Your task to perform on an android device: Open the Play Movies app and select the watchlist tab. Image 0: 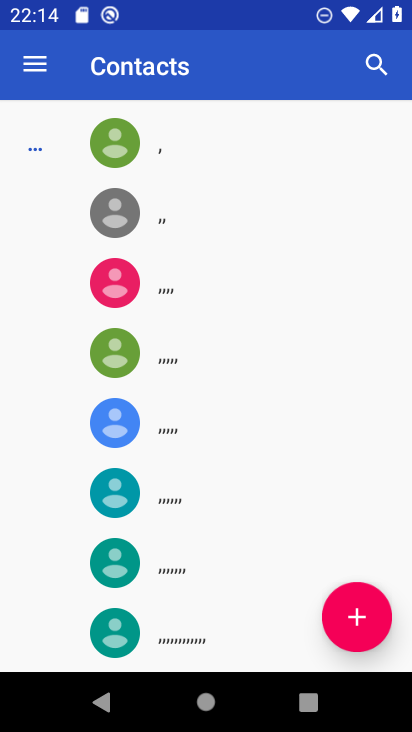
Step 0: press home button
Your task to perform on an android device: Open the Play Movies app and select the watchlist tab. Image 1: 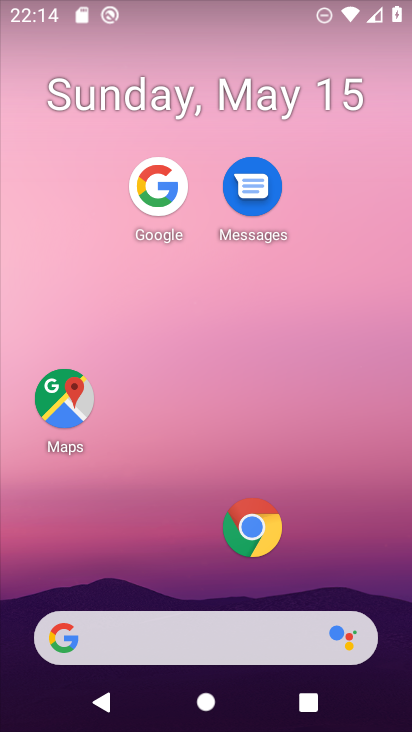
Step 1: drag from (186, 628) to (334, 257)
Your task to perform on an android device: Open the Play Movies app and select the watchlist tab. Image 2: 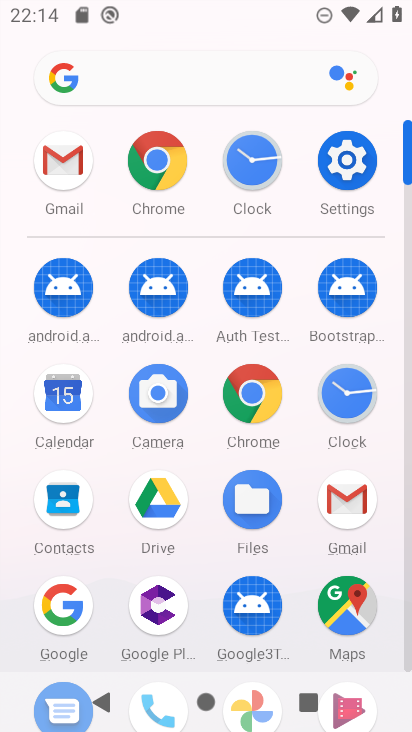
Step 2: drag from (203, 560) to (369, 237)
Your task to perform on an android device: Open the Play Movies app and select the watchlist tab. Image 3: 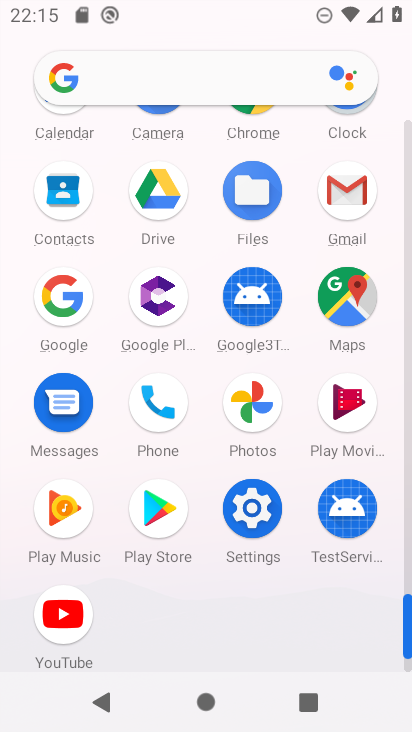
Step 3: click (350, 416)
Your task to perform on an android device: Open the Play Movies app and select the watchlist tab. Image 4: 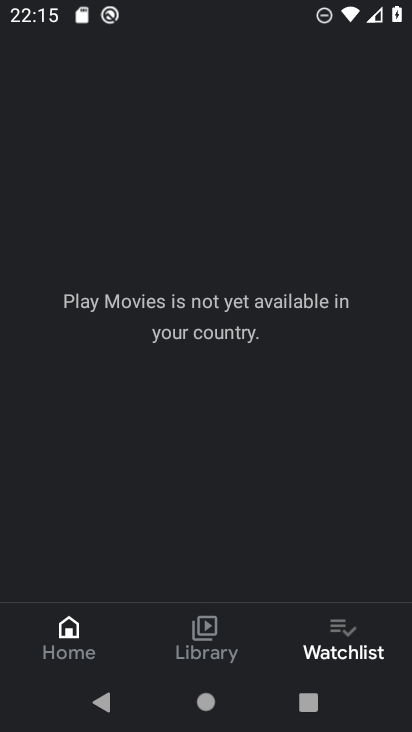
Step 4: task complete